Your task to perform on an android device: Open settings on Google Maps Image 0: 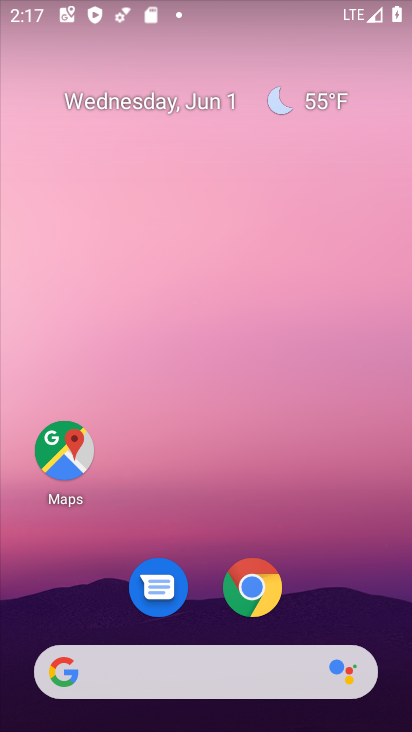
Step 0: drag from (197, 679) to (235, 106)
Your task to perform on an android device: Open settings on Google Maps Image 1: 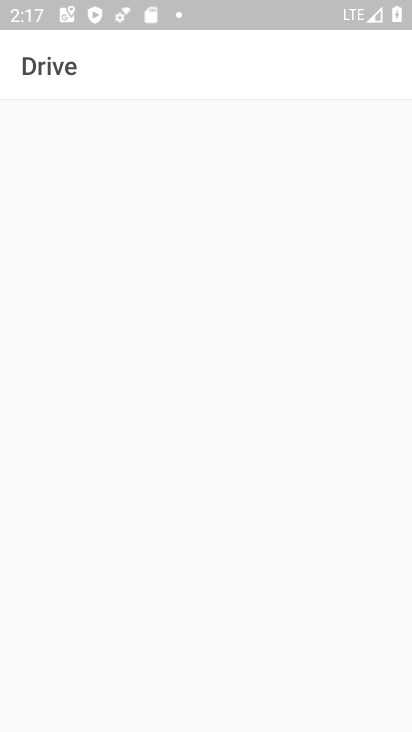
Step 1: press home button
Your task to perform on an android device: Open settings on Google Maps Image 2: 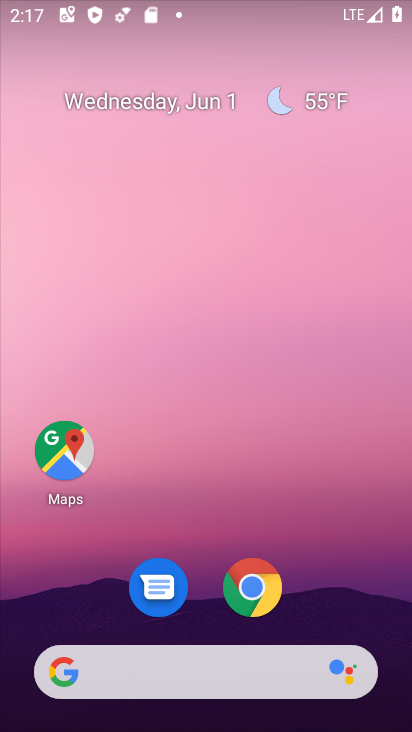
Step 2: drag from (234, 650) to (200, 195)
Your task to perform on an android device: Open settings on Google Maps Image 3: 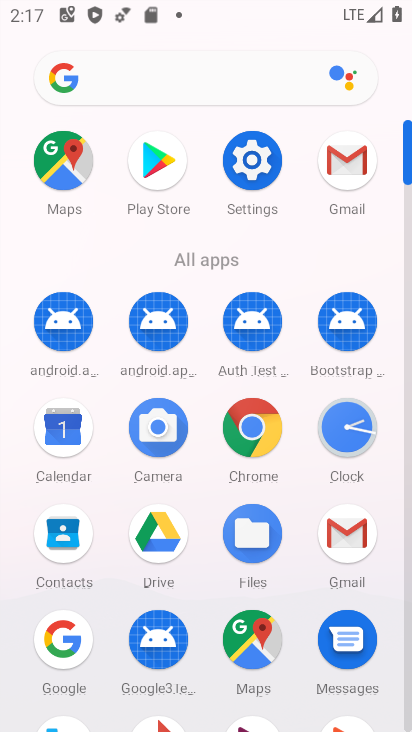
Step 3: click (57, 177)
Your task to perform on an android device: Open settings on Google Maps Image 4: 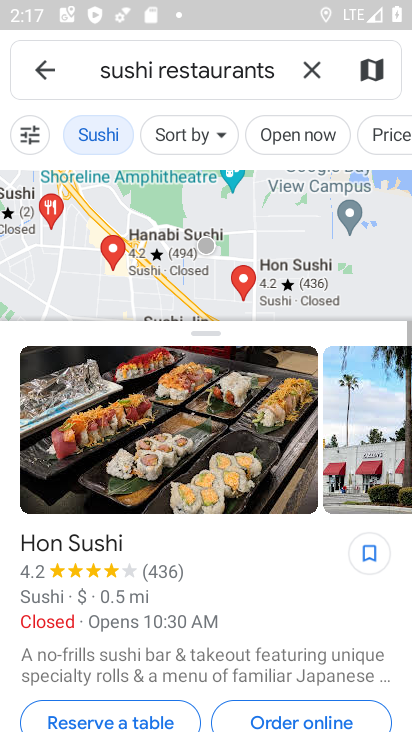
Step 4: click (48, 71)
Your task to perform on an android device: Open settings on Google Maps Image 5: 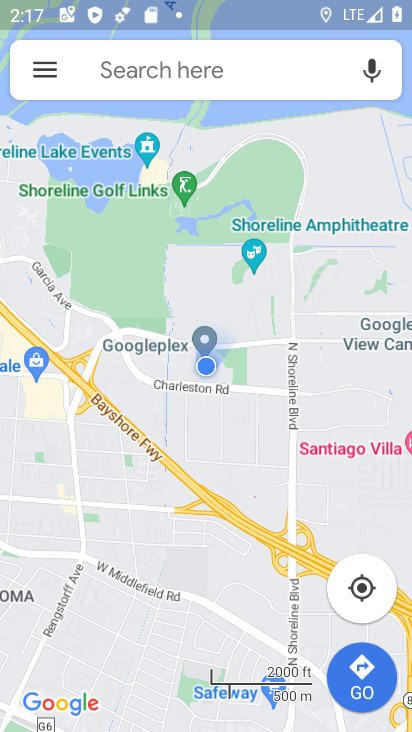
Step 5: click (54, 72)
Your task to perform on an android device: Open settings on Google Maps Image 6: 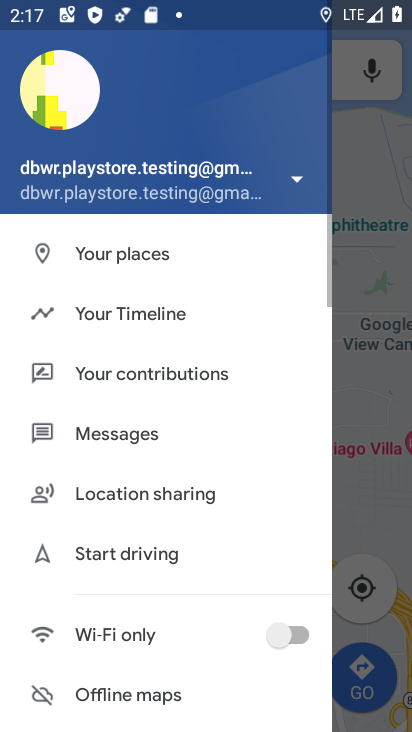
Step 6: drag from (128, 437) to (89, 160)
Your task to perform on an android device: Open settings on Google Maps Image 7: 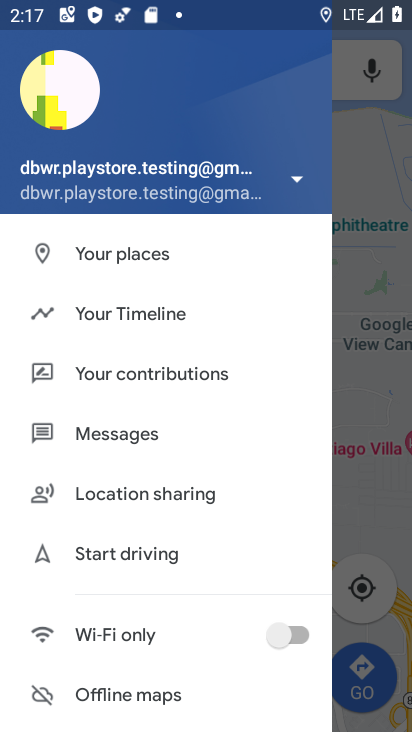
Step 7: drag from (146, 607) to (145, 241)
Your task to perform on an android device: Open settings on Google Maps Image 8: 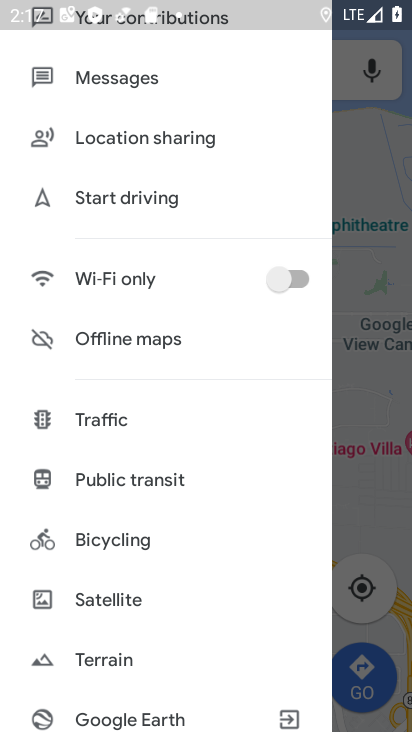
Step 8: drag from (134, 679) to (105, 182)
Your task to perform on an android device: Open settings on Google Maps Image 9: 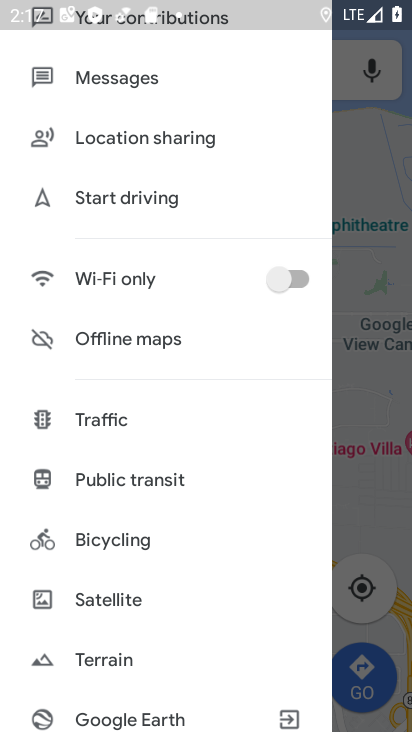
Step 9: drag from (141, 710) to (154, 316)
Your task to perform on an android device: Open settings on Google Maps Image 10: 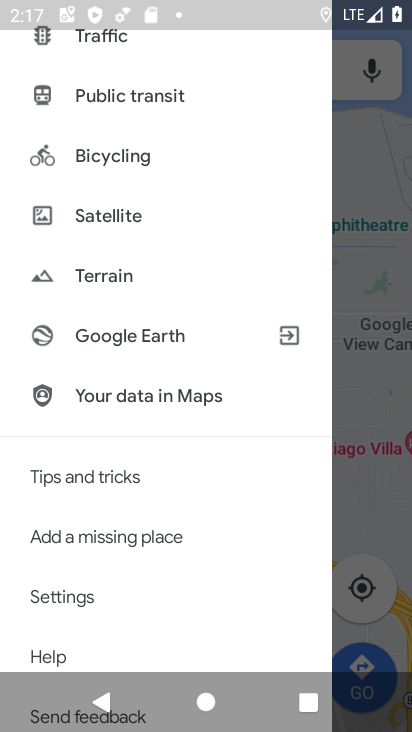
Step 10: click (73, 600)
Your task to perform on an android device: Open settings on Google Maps Image 11: 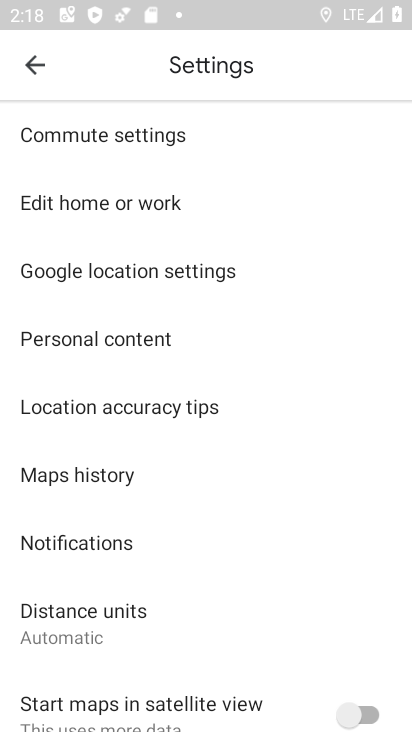
Step 11: task complete